Your task to perform on an android device: allow notifications from all sites in the chrome app Image 0: 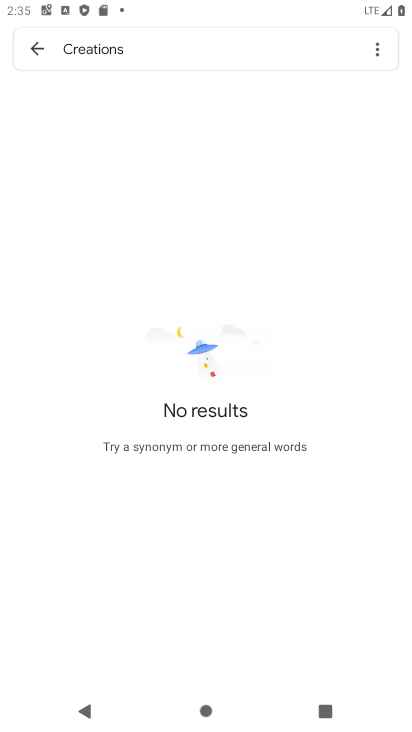
Step 0: press home button
Your task to perform on an android device: allow notifications from all sites in the chrome app Image 1: 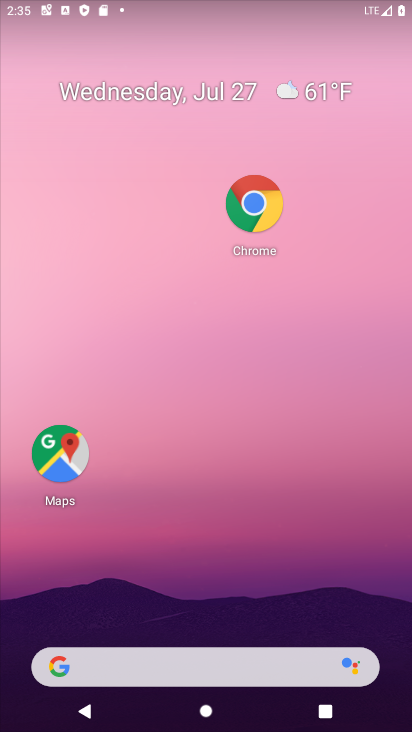
Step 1: click (258, 218)
Your task to perform on an android device: allow notifications from all sites in the chrome app Image 2: 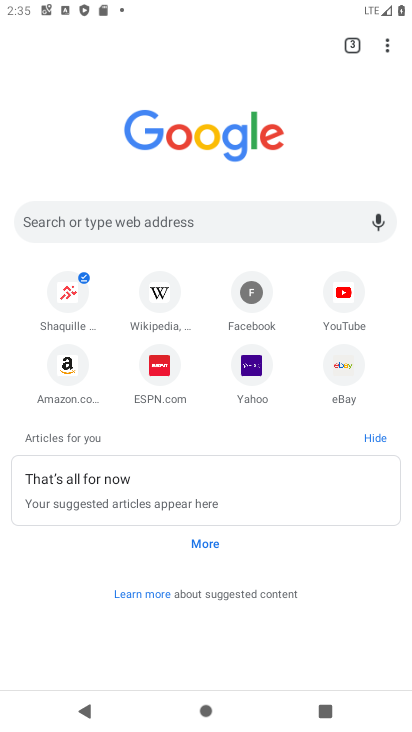
Step 2: click (381, 52)
Your task to perform on an android device: allow notifications from all sites in the chrome app Image 3: 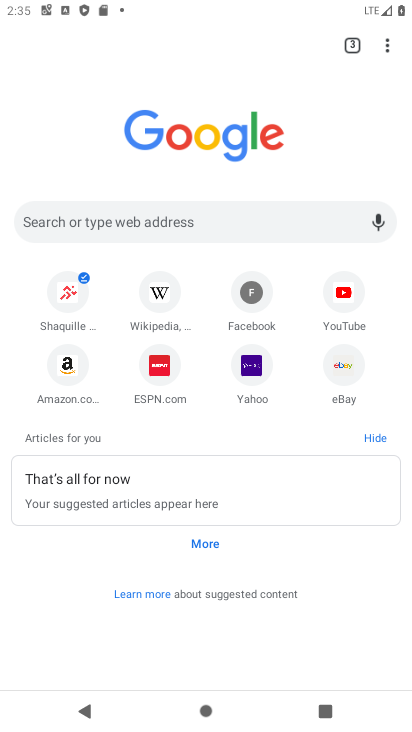
Step 3: click (389, 47)
Your task to perform on an android device: allow notifications from all sites in the chrome app Image 4: 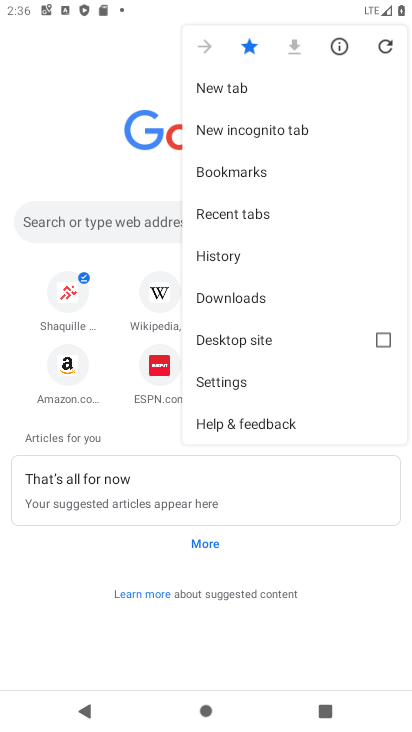
Step 4: click (262, 384)
Your task to perform on an android device: allow notifications from all sites in the chrome app Image 5: 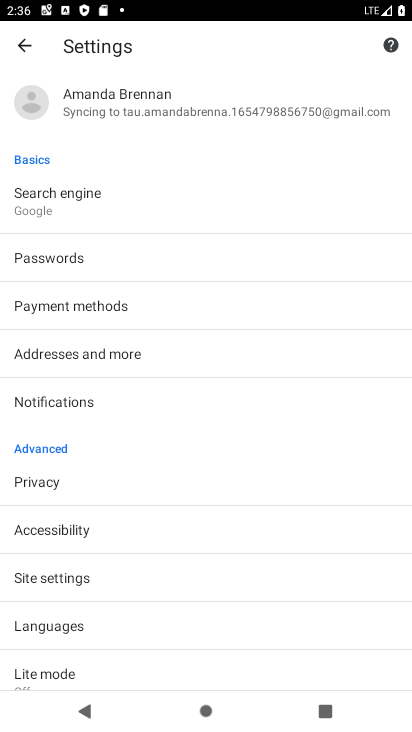
Step 5: click (82, 574)
Your task to perform on an android device: allow notifications from all sites in the chrome app Image 6: 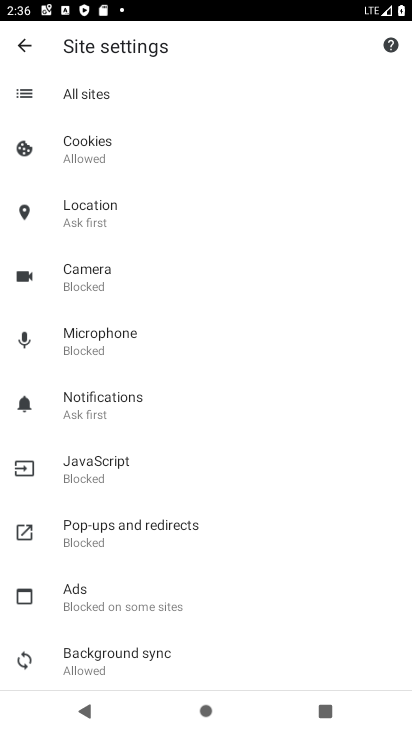
Step 6: click (95, 105)
Your task to perform on an android device: allow notifications from all sites in the chrome app Image 7: 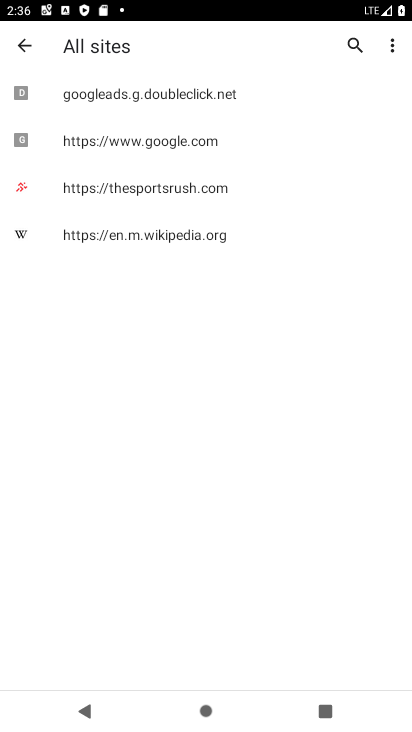
Step 7: click (166, 148)
Your task to perform on an android device: allow notifications from all sites in the chrome app Image 8: 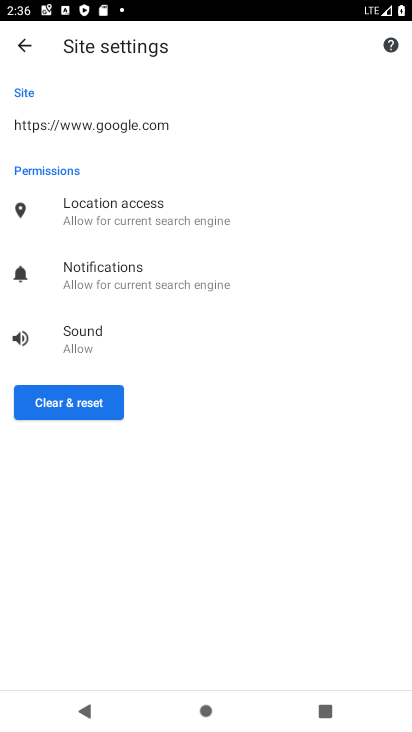
Step 8: click (143, 273)
Your task to perform on an android device: allow notifications from all sites in the chrome app Image 9: 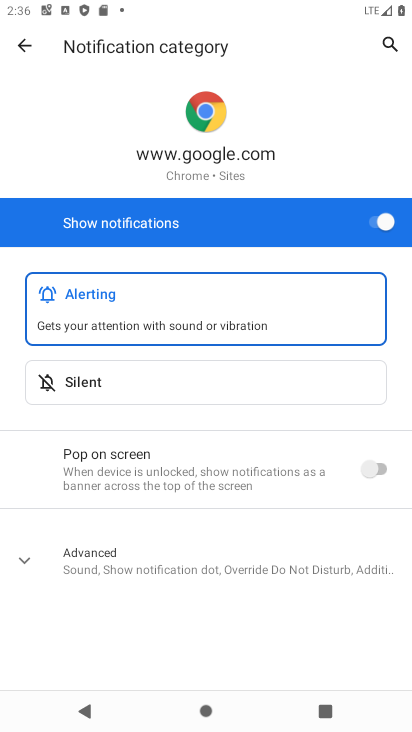
Step 9: task complete